Your task to perform on an android device: Open notification settings Image 0: 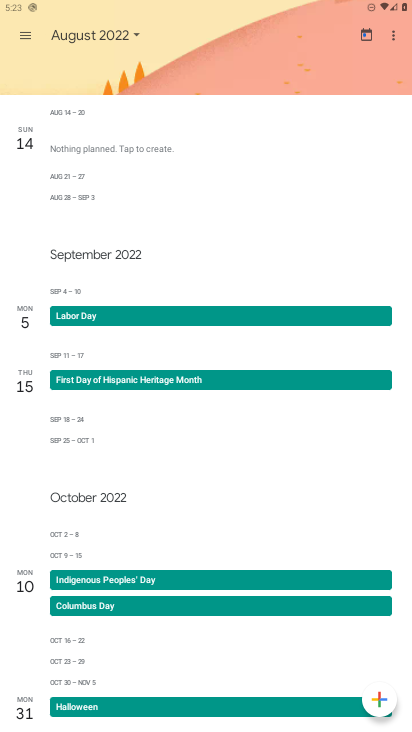
Step 0: press home button
Your task to perform on an android device: Open notification settings Image 1: 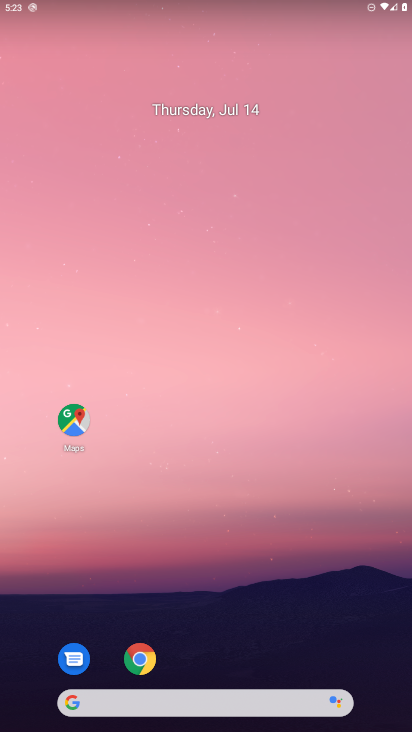
Step 1: drag from (218, 661) to (210, 43)
Your task to perform on an android device: Open notification settings Image 2: 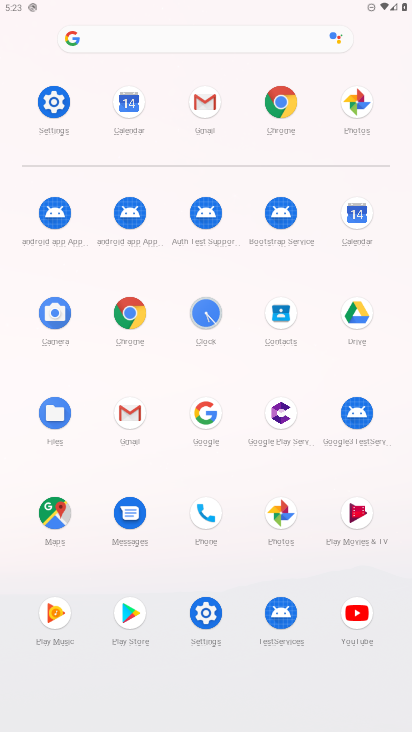
Step 2: click (55, 91)
Your task to perform on an android device: Open notification settings Image 3: 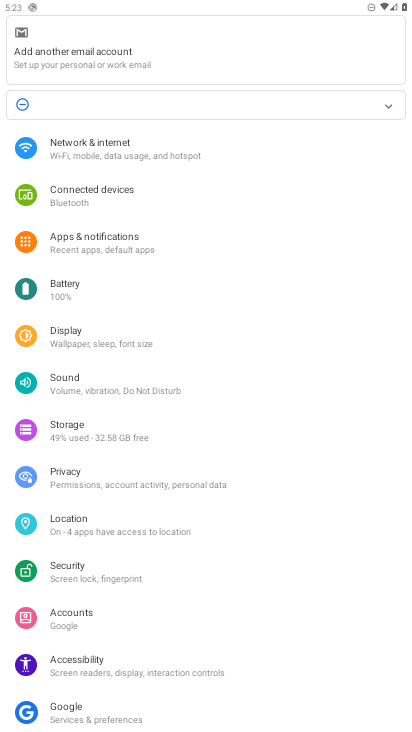
Step 3: click (150, 236)
Your task to perform on an android device: Open notification settings Image 4: 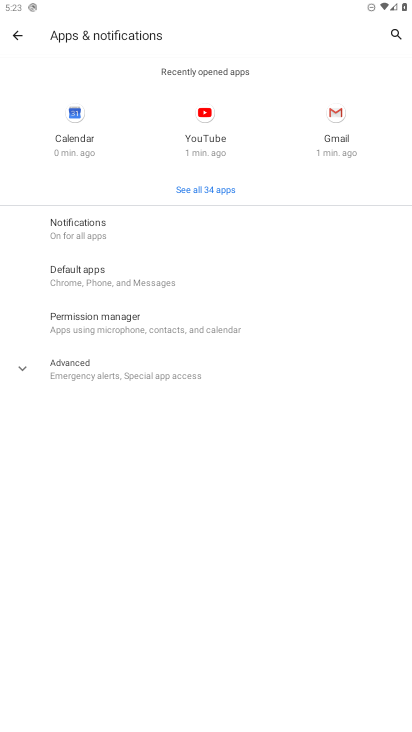
Step 4: click (112, 227)
Your task to perform on an android device: Open notification settings Image 5: 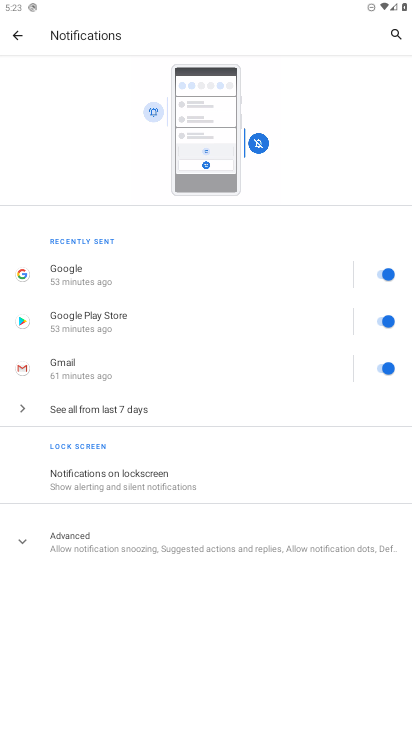
Step 5: click (82, 536)
Your task to perform on an android device: Open notification settings Image 6: 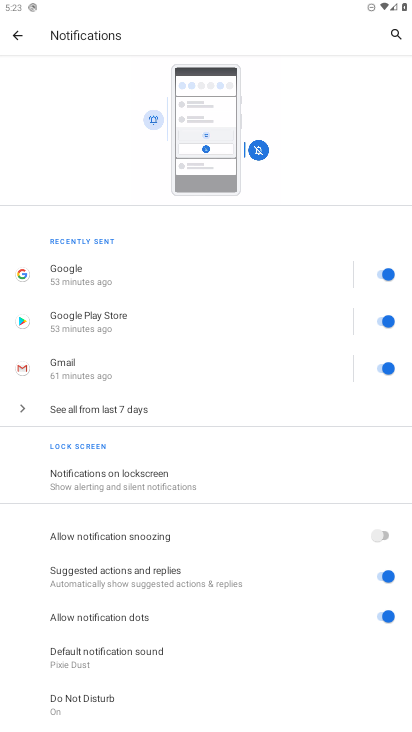
Step 6: task complete